Your task to perform on an android device: Go to eBay Image 0: 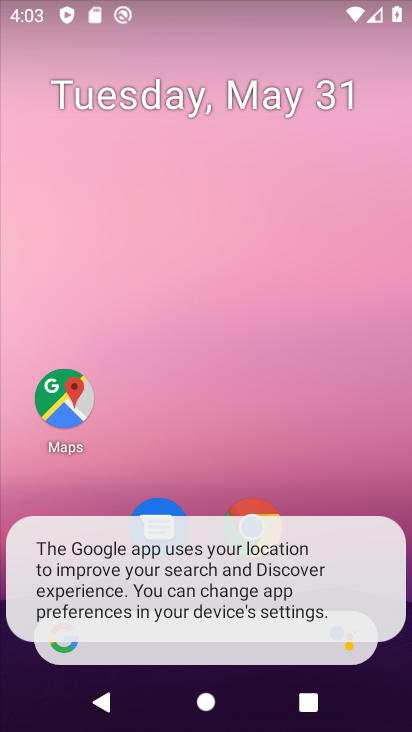
Step 0: click (253, 504)
Your task to perform on an android device: Go to eBay Image 1: 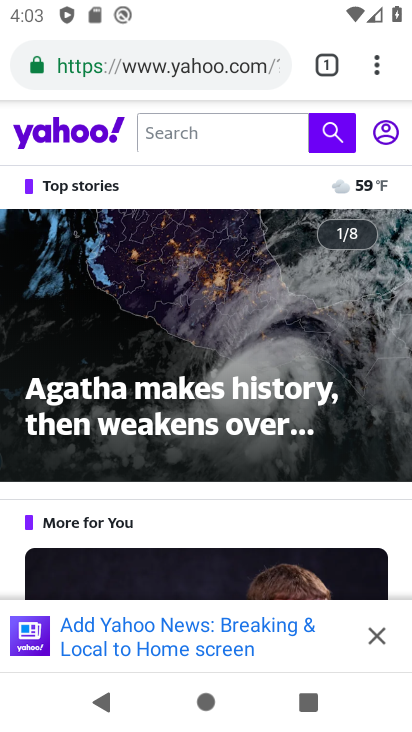
Step 1: click (331, 56)
Your task to perform on an android device: Go to eBay Image 2: 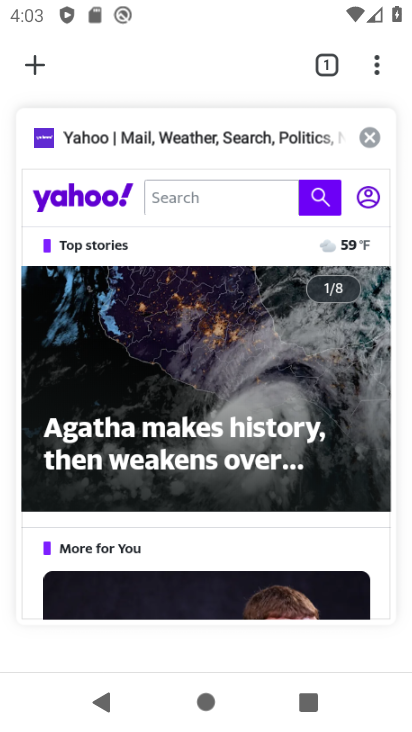
Step 2: click (40, 63)
Your task to perform on an android device: Go to eBay Image 3: 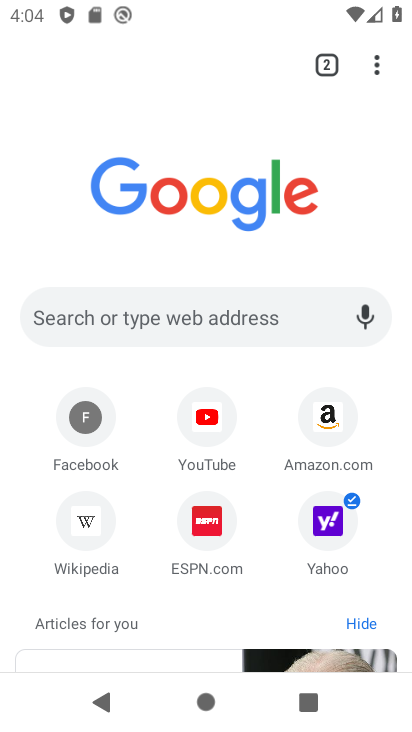
Step 3: click (193, 328)
Your task to perform on an android device: Go to eBay Image 4: 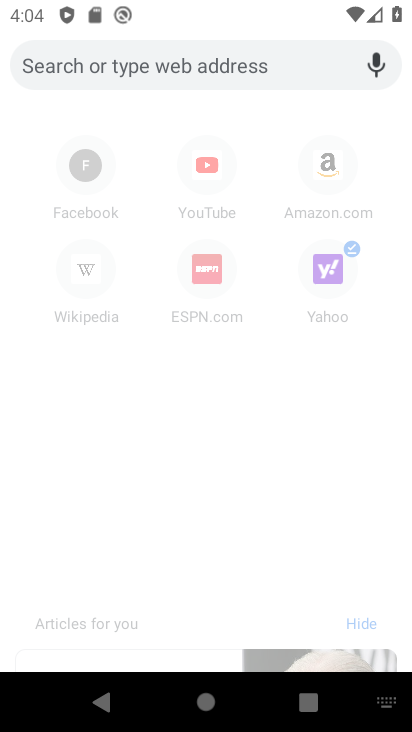
Step 4: type "eBay"
Your task to perform on an android device: Go to eBay Image 5: 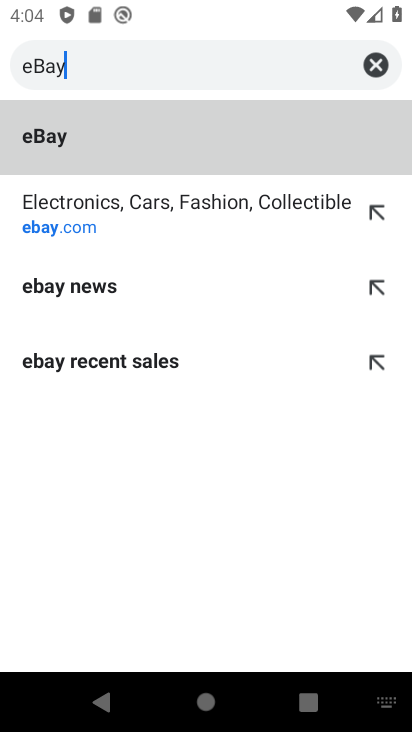
Step 5: click (86, 224)
Your task to perform on an android device: Go to eBay Image 6: 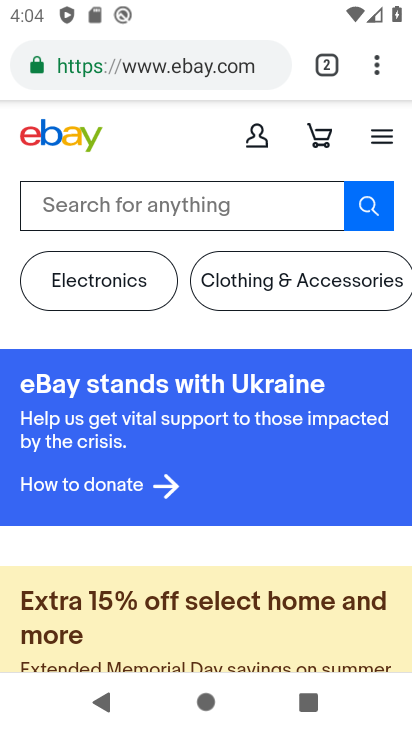
Step 6: task complete